Your task to perform on an android device: open app "eBay: The shopping marketplace" (install if not already installed) Image 0: 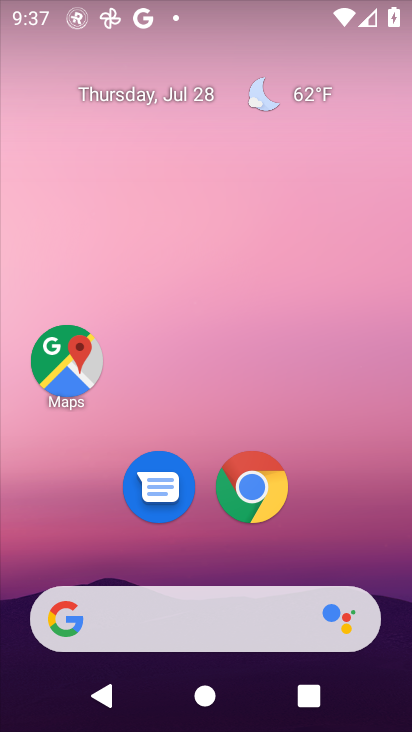
Step 0: drag from (242, 560) to (215, 68)
Your task to perform on an android device: open app "eBay: The shopping marketplace" (install if not already installed) Image 1: 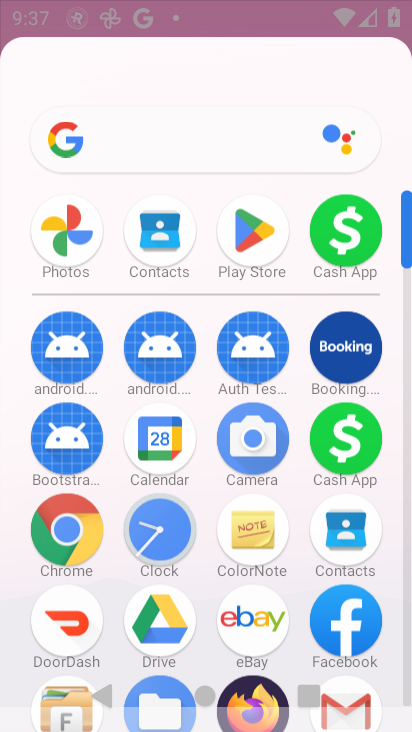
Step 1: drag from (279, 633) to (202, 80)
Your task to perform on an android device: open app "eBay: The shopping marketplace" (install if not already installed) Image 2: 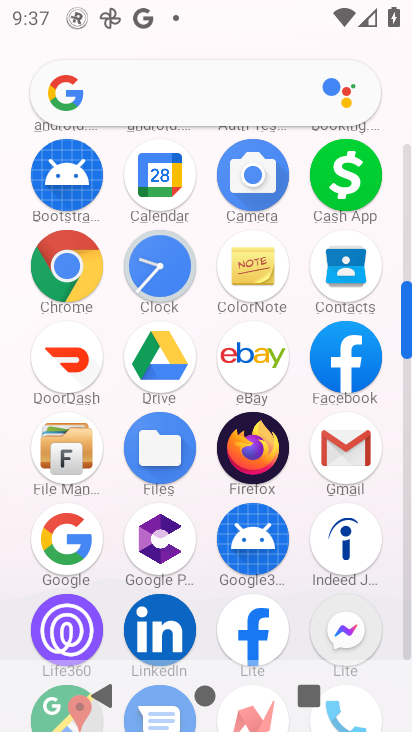
Step 2: drag from (276, 197) to (297, 486)
Your task to perform on an android device: open app "eBay: The shopping marketplace" (install if not already installed) Image 3: 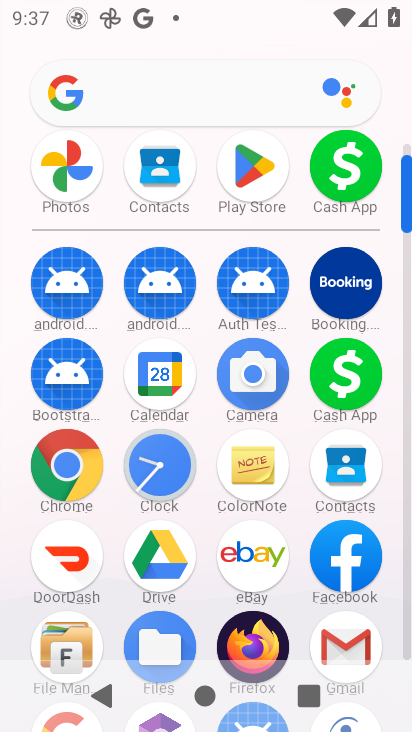
Step 3: drag from (295, 237) to (296, 482)
Your task to perform on an android device: open app "eBay: The shopping marketplace" (install if not already installed) Image 4: 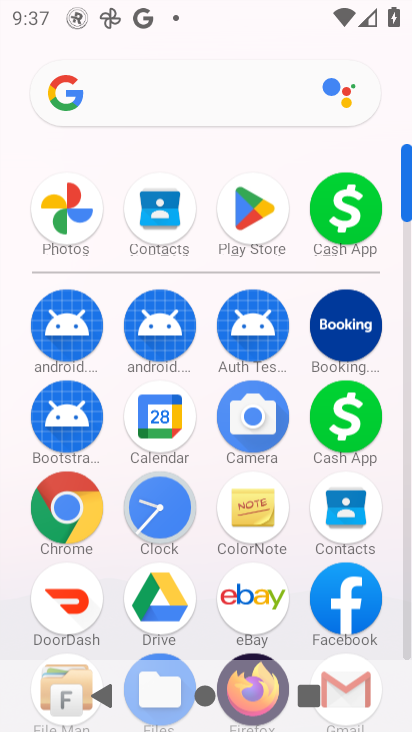
Step 4: drag from (274, 167) to (290, 505)
Your task to perform on an android device: open app "eBay: The shopping marketplace" (install if not already installed) Image 5: 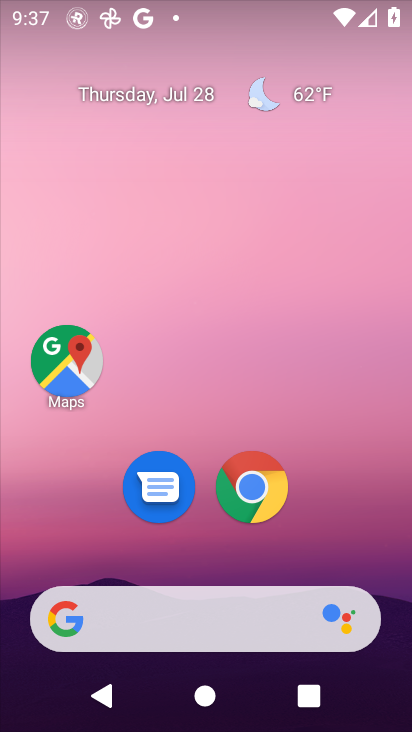
Step 5: drag from (237, 522) to (231, 2)
Your task to perform on an android device: open app "eBay: The shopping marketplace" (install if not already installed) Image 6: 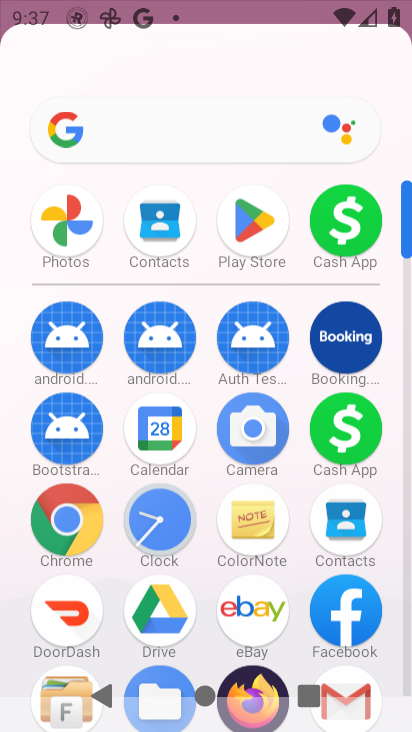
Step 6: drag from (218, 605) to (116, 29)
Your task to perform on an android device: open app "eBay: The shopping marketplace" (install if not already installed) Image 7: 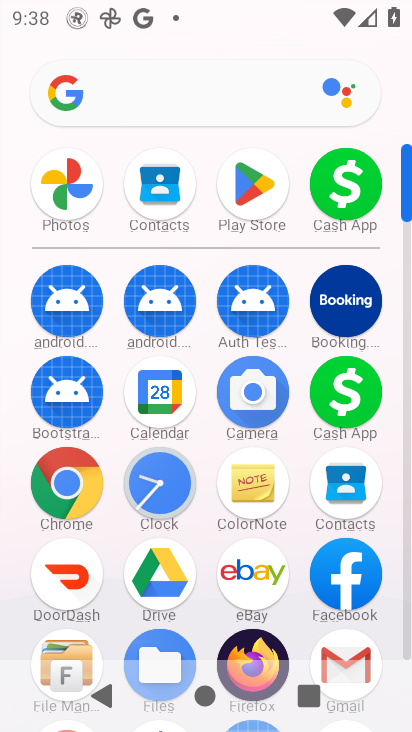
Step 7: click (250, 194)
Your task to perform on an android device: open app "eBay: The shopping marketplace" (install if not already installed) Image 8: 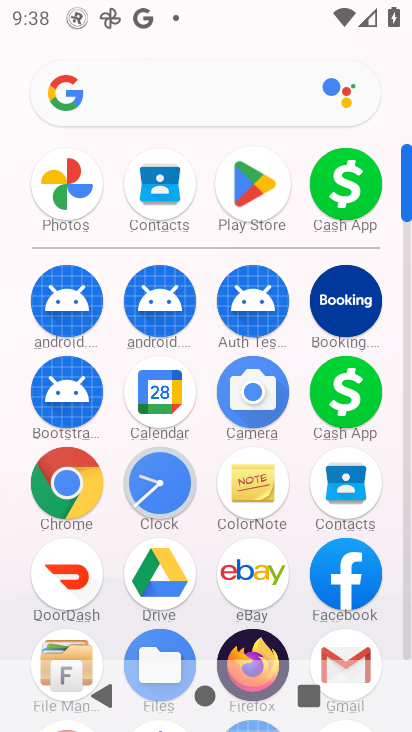
Step 8: click (249, 193)
Your task to perform on an android device: open app "eBay: The shopping marketplace" (install if not already installed) Image 9: 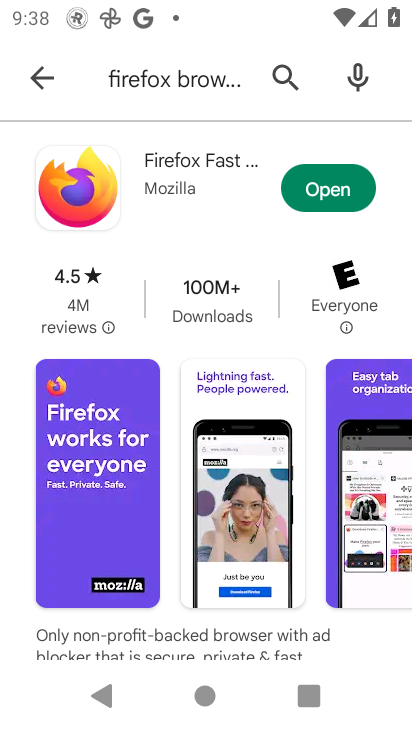
Step 9: click (38, 77)
Your task to perform on an android device: open app "eBay: The shopping marketplace" (install if not already installed) Image 10: 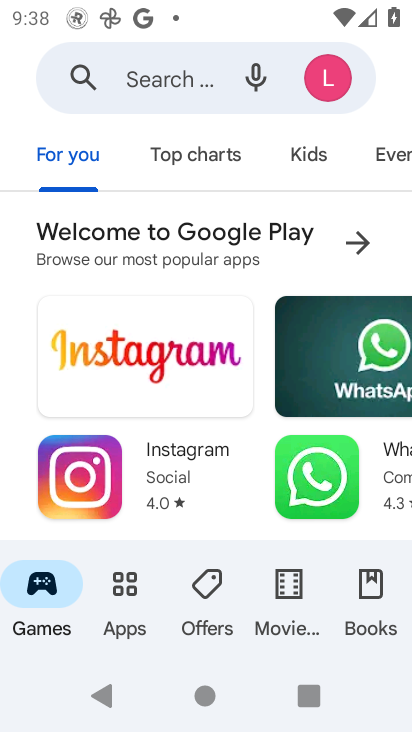
Step 10: click (128, 89)
Your task to perform on an android device: open app "eBay: The shopping marketplace" (install if not already installed) Image 11: 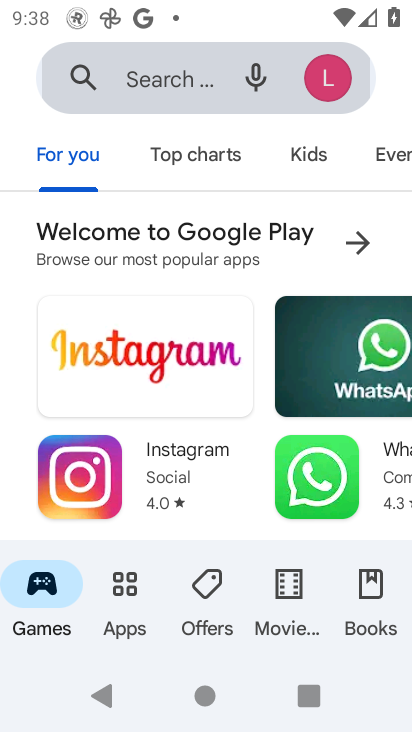
Step 11: click (128, 89)
Your task to perform on an android device: open app "eBay: The shopping marketplace" (install if not already installed) Image 12: 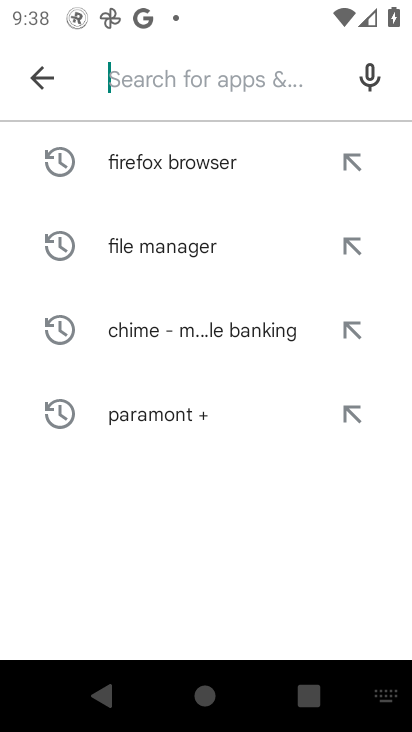
Step 12: type "ebay: The shopping marketplace"
Your task to perform on an android device: open app "eBay: The shopping marketplace" (install if not already installed) Image 13: 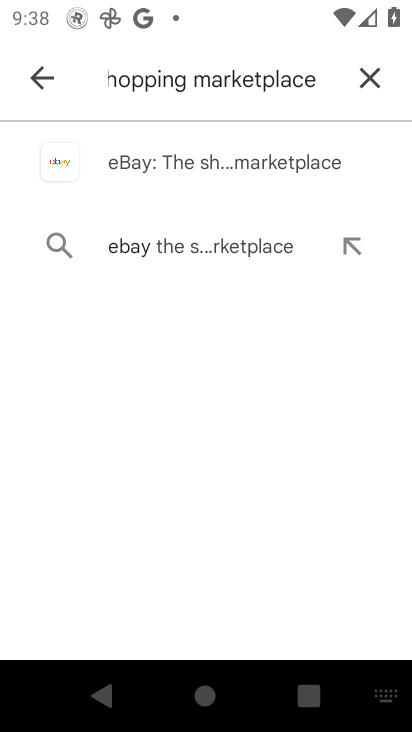
Step 13: click (252, 168)
Your task to perform on an android device: open app "eBay: The shopping marketplace" (install if not already installed) Image 14: 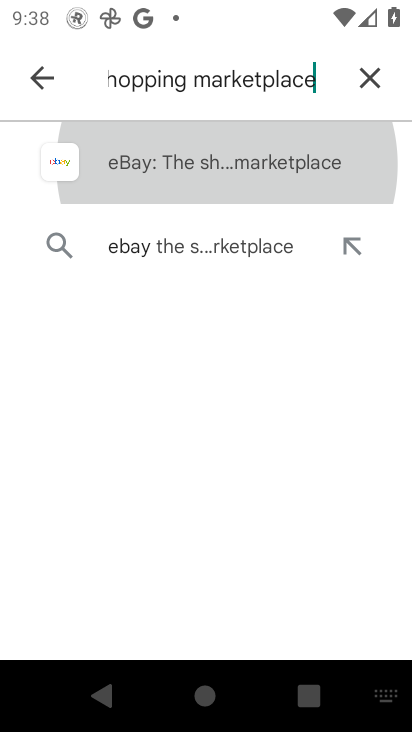
Step 14: click (252, 168)
Your task to perform on an android device: open app "eBay: The shopping marketplace" (install if not already installed) Image 15: 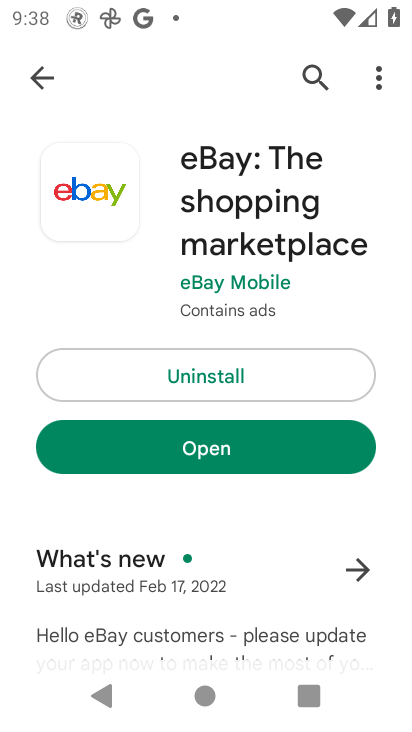
Step 15: click (226, 444)
Your task to perform on an android device: open app "eBay: The shopping marketplace" (install if not already installed) Image 16: 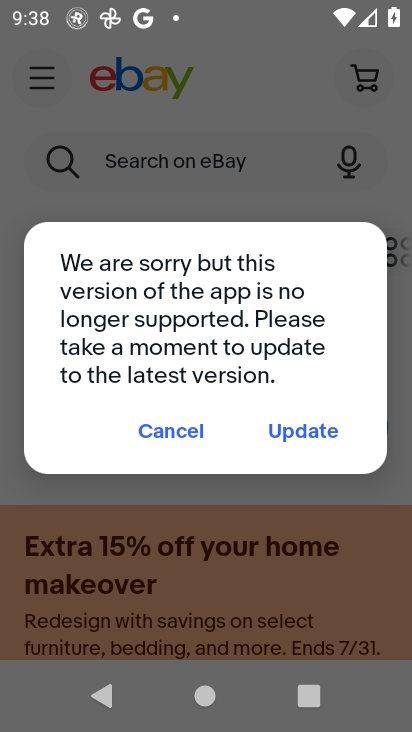
Step 16: click (160, 419)
Your task to perform on an android device: open app "eBay: The shopping marketplace" (install if not already installed) Image 17: 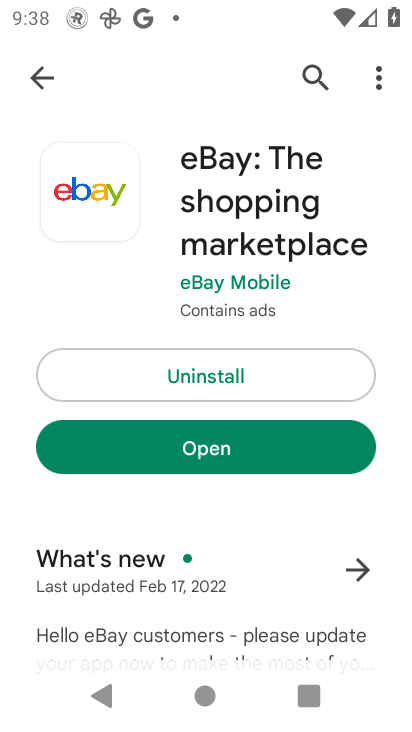
Step 17: click (227, 441)
Your task to perform on an android device: open app "eBay: The shopping marketplace" (install if not already installed) Image 18: 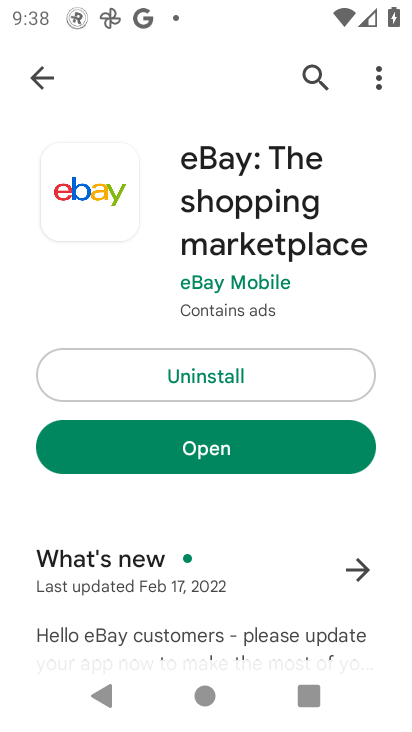
Step 18: click (239, 451)
Your task to perform on an android device: open app "eBay: The shopping marketplace" (install if not already installed) Image 19: 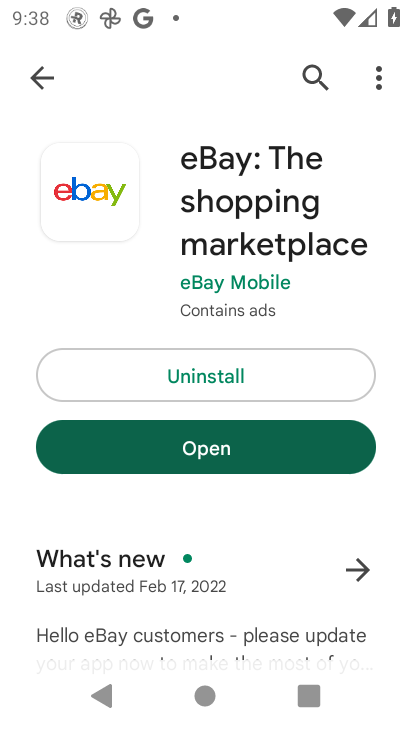
Step 19: click (240, 451)
Your task to perform on an android device: open app "eBay: The shopping marketplace" (install if not already installed) Image 20: 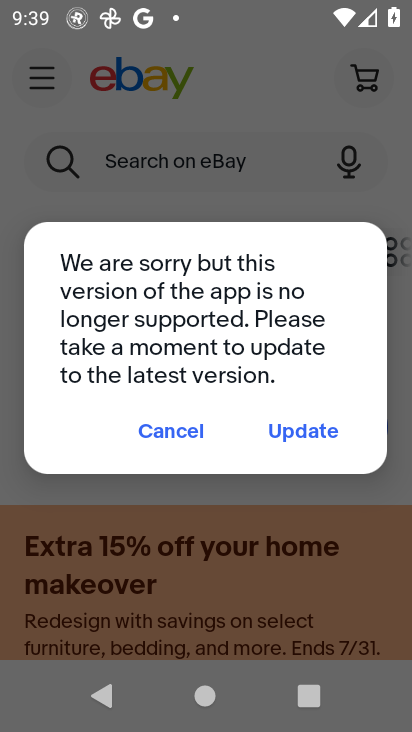
Step 20: click (161, 434)
Your task to perform on an android device: open app "eBay: The shopping marketplace" (install if not already installed) Image 21: 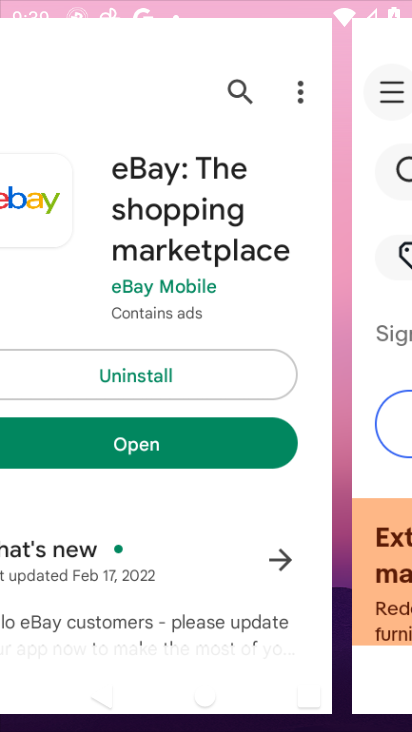
Step 21: task complete